Your task to perform on an android device: open chrome privacy settings Image 0: 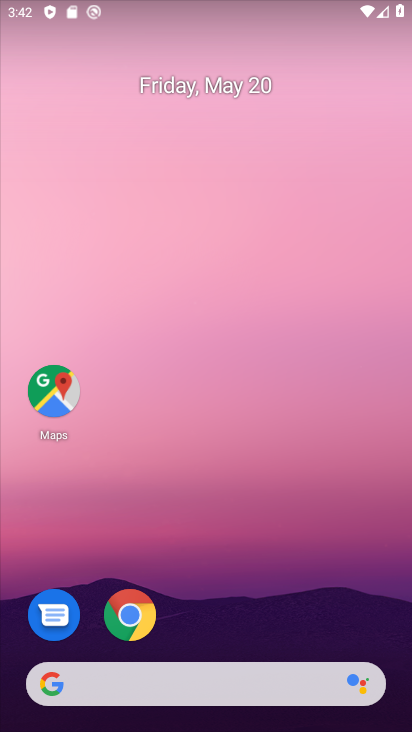
Step 0: drag from (244, 642) to (287, 208)
Your task to perform on an android device: open chrome privacy settings Image 1: 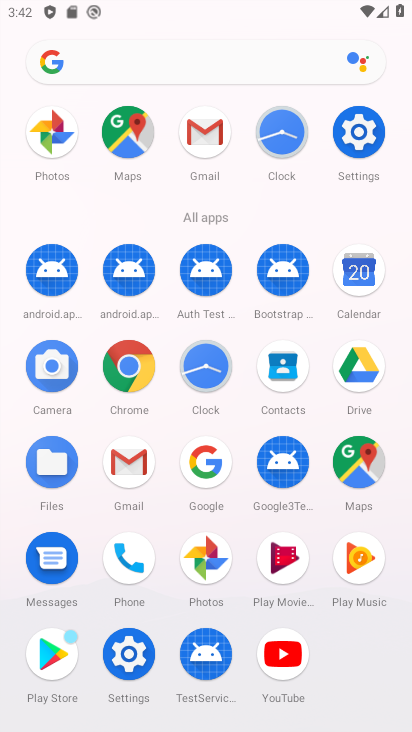
Step 1: click (360, 124)
Your task to perform on an android device: open chrome privacy settings Image 2: 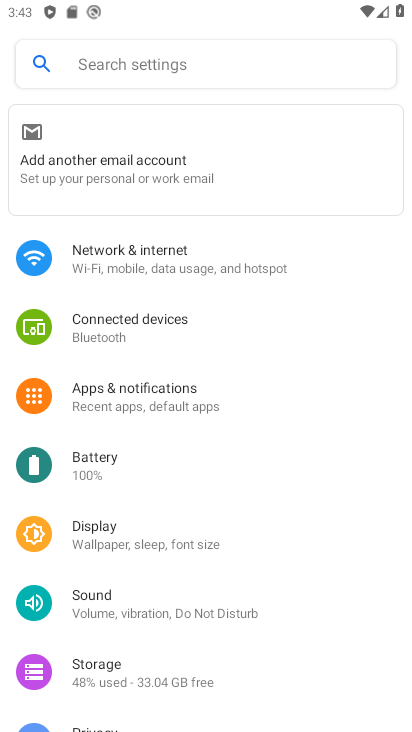
Step 2: drag from (214, 591) to (289, 277)
Your task to perform on an android device: open chrome privacy settings Image 3: 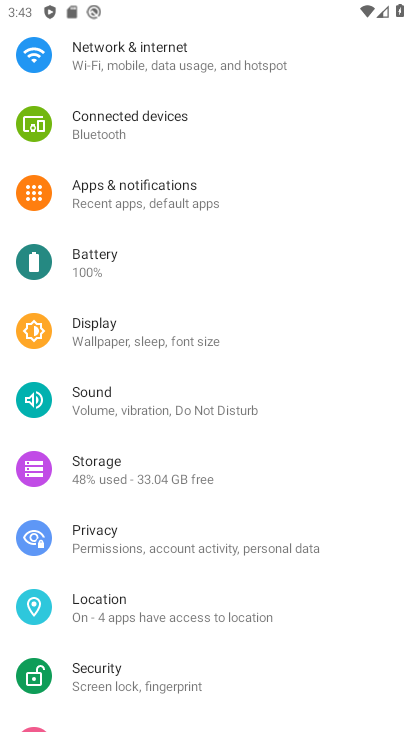
Step 3: click (188, 550)
Your task to perform on an android device: open chrome privacy settings Image 4: 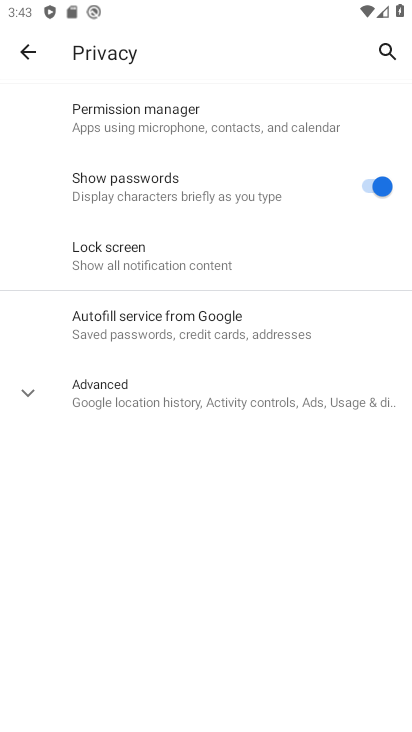
Step 4: task complete